Your task to perform on an android device: Open Google Chrome and open the bookmarks view Image 0: 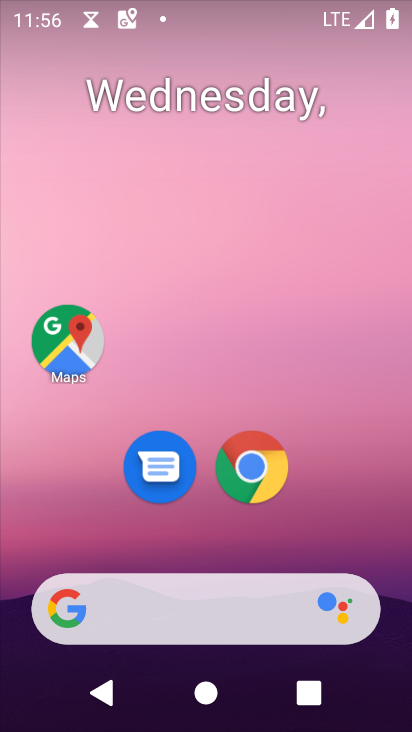
Step 0: click (258, 490)
Your task to perform on an android device: Open Google Chrome and open the bookmarks view Image 1: 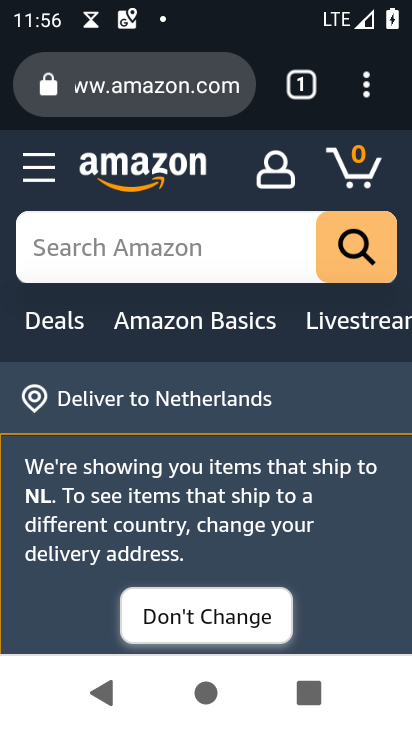
Step 1: task complete